Your task to perform on an android device: turn on the 24-hour format for clock Image 0: 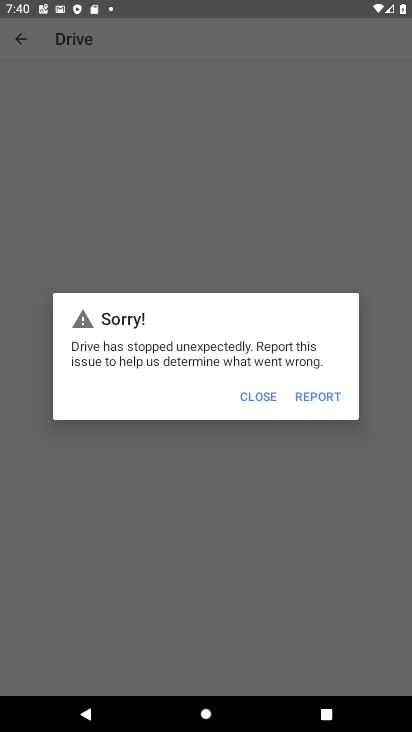
Step 0: press home button
Your task to perform on an android device: turn on the 24-hour format for clock Image 1: 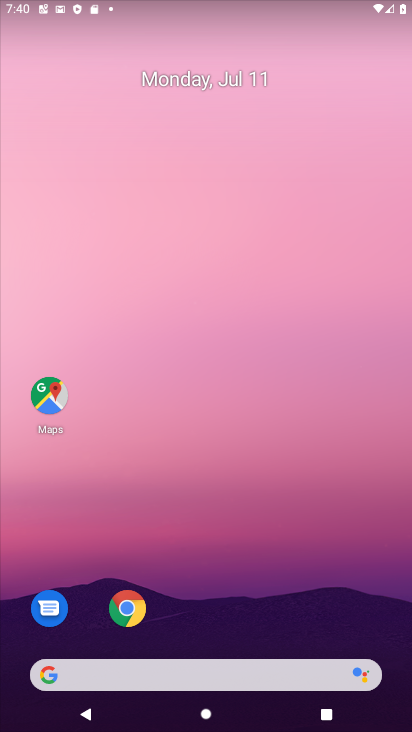
Step 1: drag from (212, 622) to (105, 207)
Your task to perform on an android device: turn on the 24-hour format for clock Image 2: 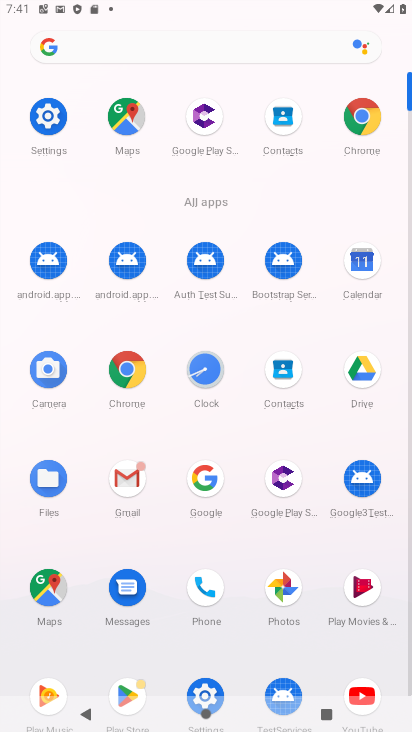
Step 2: click (216, 366)
Your task to perform on an android device: turn on the 24-hour format for clock Image 3: 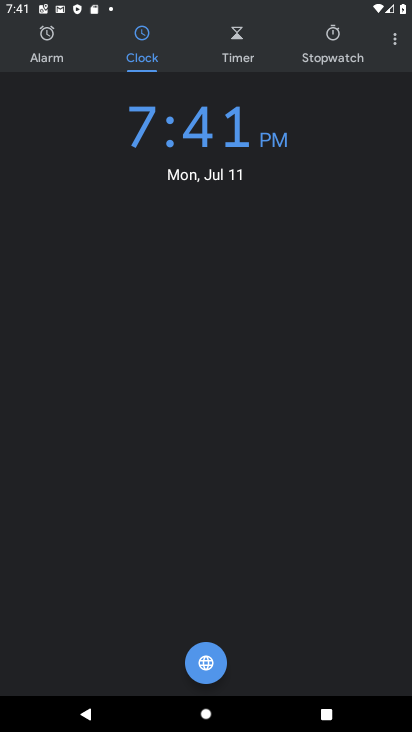
Step 3: click (389, 47)
Your task to perform on an android device: turn on the 24-hour format for clock Image 4: 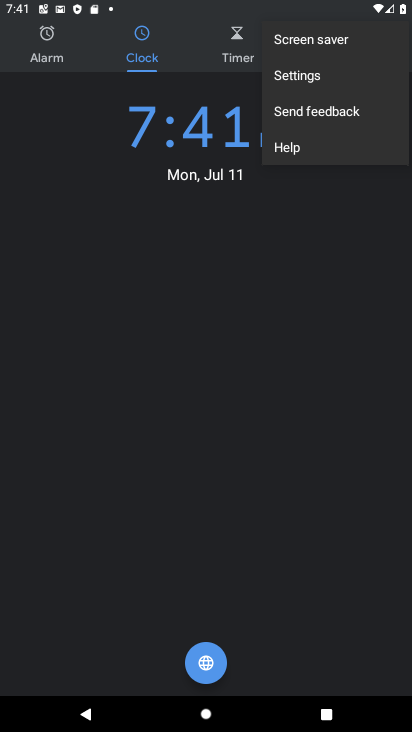
Step 4: click (297, 81)
Your task to perform on an android device: turn on the 24-hour format for clock Image 5: 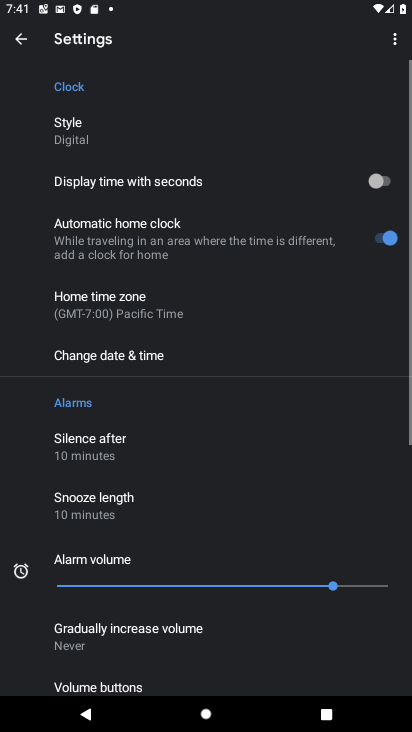
Step 5: click (141, 353)
Your task to perform on an android device: turn on the 24-hour format for clock Image 6: 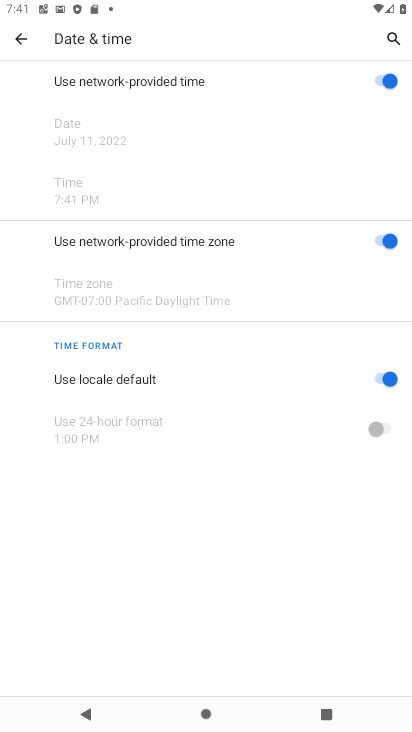
Step 6: click (370, 378)
Your task to perform on an android device: turn on the 24-hour format for clock Image 7: 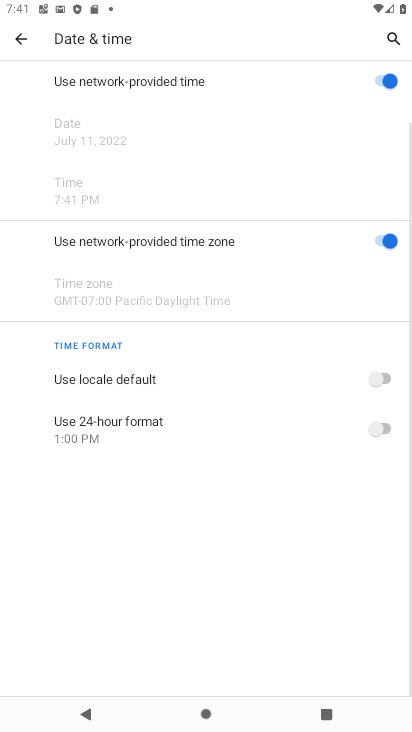
Step 7: click (370, 418)
Your task to perform on an android device: turn on the 24-hour format for clock Image 8: 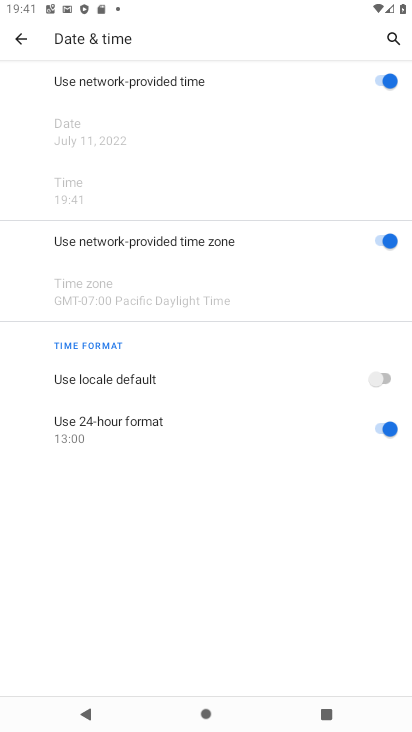
Step 8: task complete